Your task to perform on an android device: turn on javascript in the chrome app Image 0: 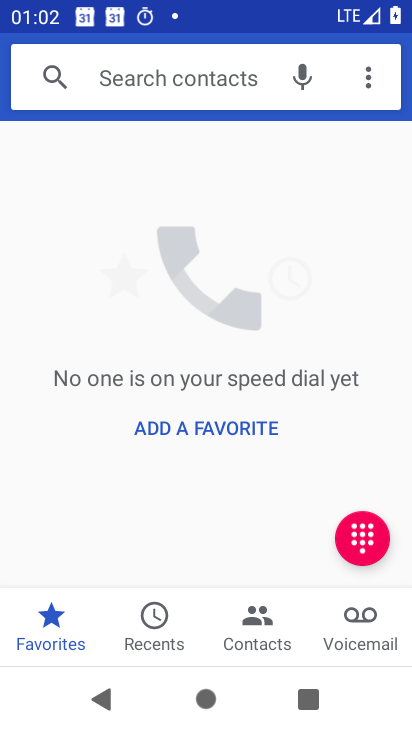
Step 0: press home button
Your task to perform on an android device: turn on javascript in the chrome app Image 1: 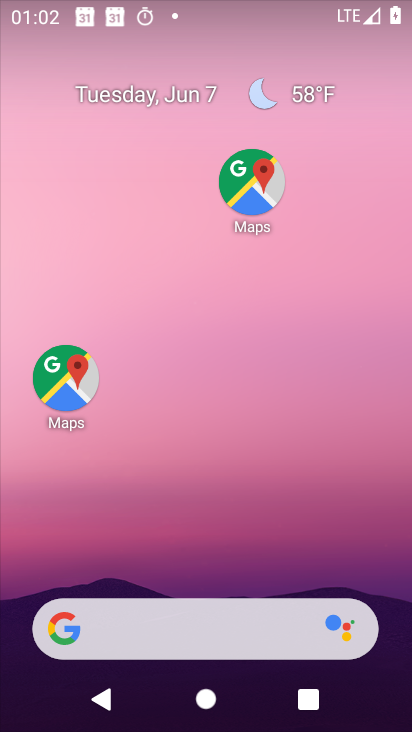
Step 1: drag from (200, 564) to (133, 81)
Your task to perform on an android device: turn on javascript in the chrome app Image 2: 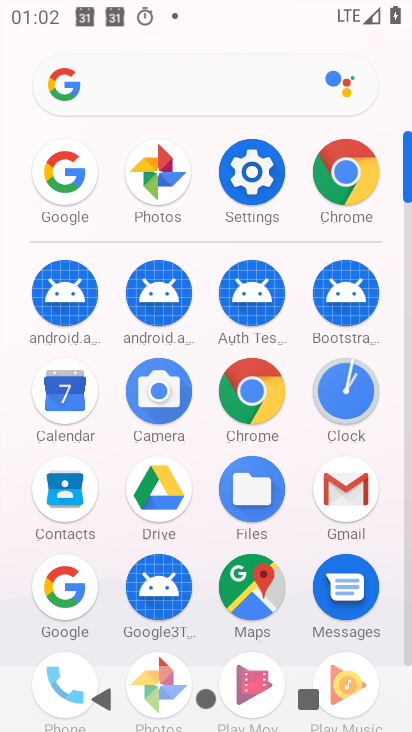
Step 2: click (347, 176)
Your task to perform on an android device: turn on javascript in the chrome app Image 3: 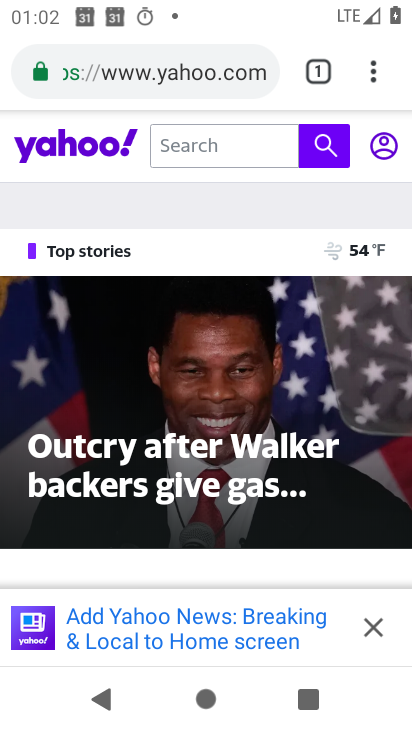
Step 3: click (364, 69)
Your task to perform on an android device: turn on javascript in the chrome app Image 4: 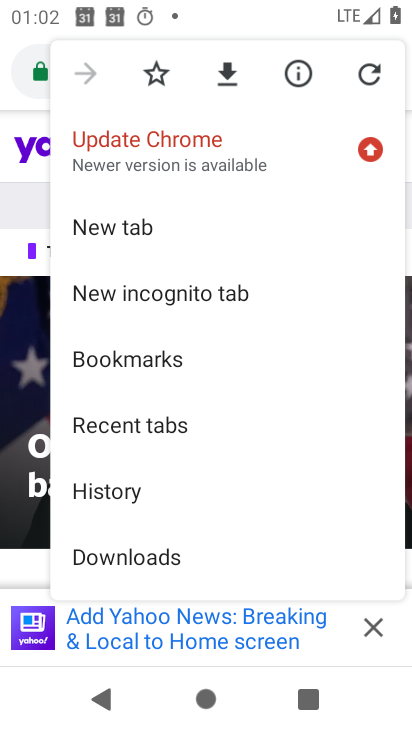
Step 4: drag from (175, 275) to (172, 112)
Your task to perform on an android device: turn on javascript in the chrome app Image 5: 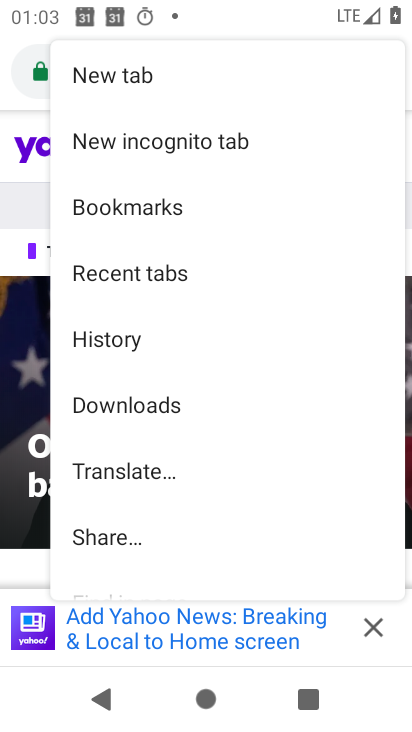
Step 5: drag from (306, 512) to (241, 82)
Your task to perform on an android device: turn on javascript in the chrome app Image 6: 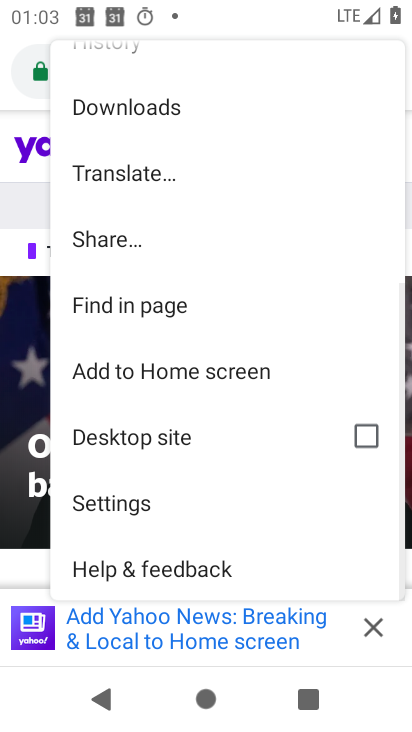
Step 6: click (108, 510)
Your task to perform on an android device: turn on javascript in the chrome app Image 7: 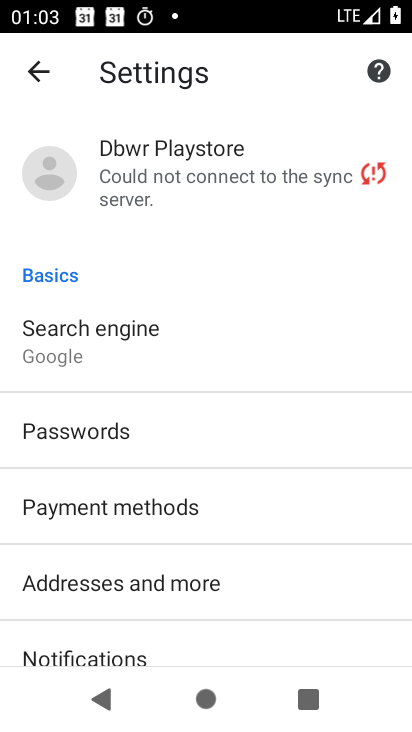
Step 7: drag from (279, 547) to (273, 98)
Your task to perform on an android device: turn on javascript in the chrome app Image 8: 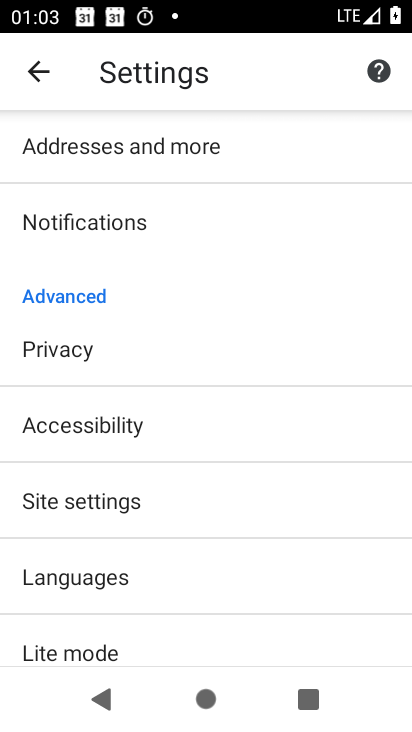
Step 8: click (74, 495)
Your task to perform on an android device: turn on javascript in the chrome app Image 9: 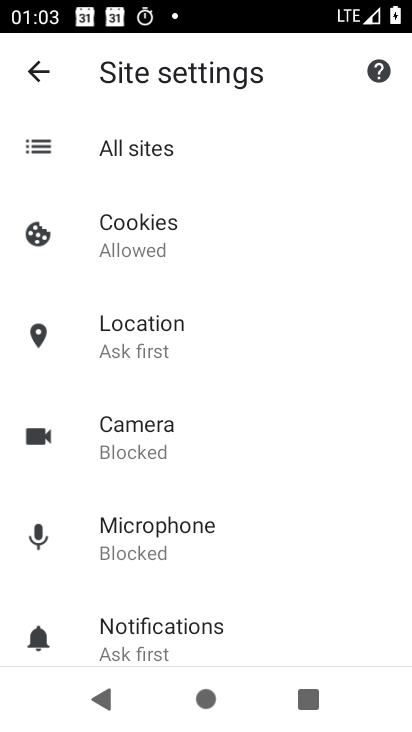
Step 9: drag from (233, 634) to (227, 183)
Your task to perform on an android device: turn on javascript in the chrome app Image 10: 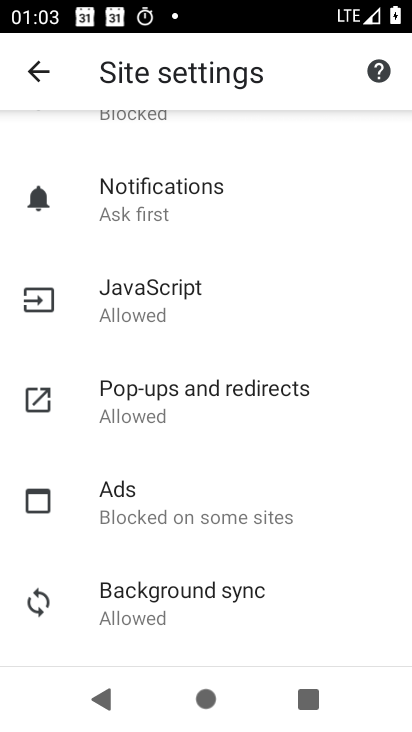
Step 10: click (174, 309)
Your task to perform on an android device: turn on javascript in the chrome app Image 11: 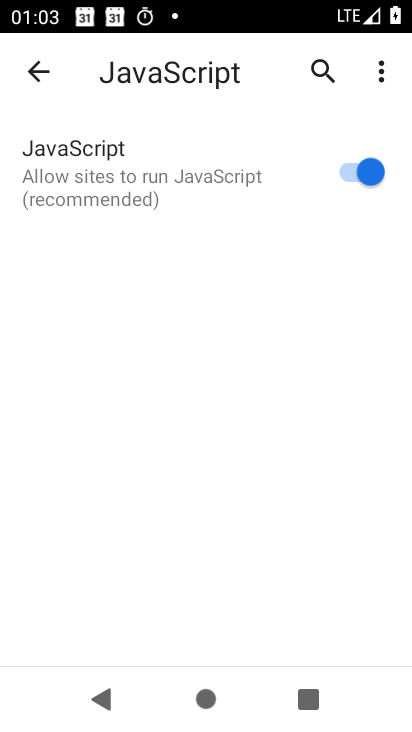
Step 11: task complete